Your task to perform on an android device: Turn on the flashlight Image 0: 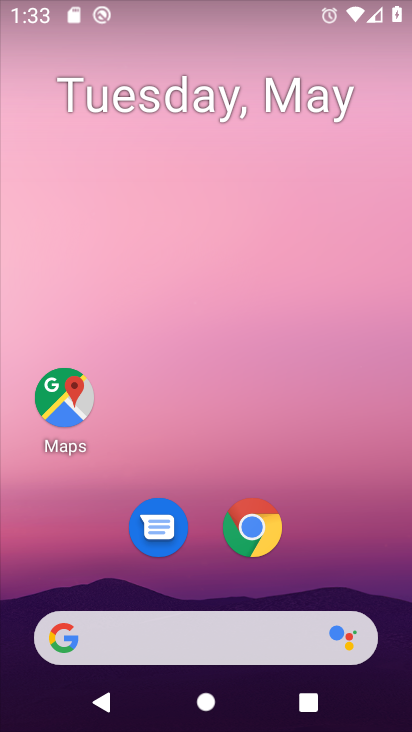
Step 0: drag from (273, 19) to (273, 644)
Your task to perform on an android device: Turn on the flashlight Image 1: 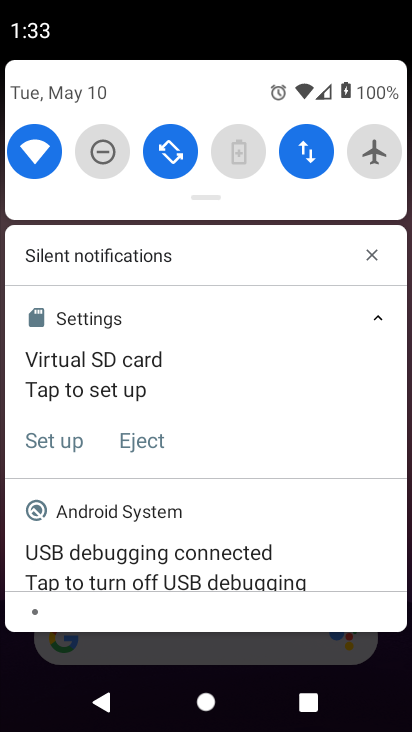
Step 1: task complete